Your task to perform on an android device: Go to Reddit.com Image 0: 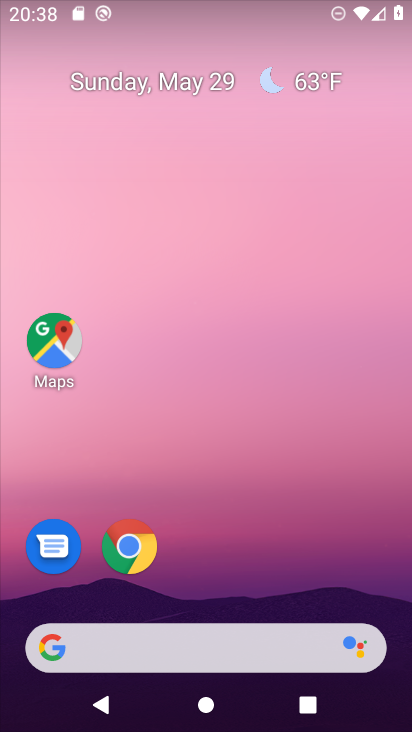
Step 0: press home button
Your task to perform on an android device: Go to Reddit.com Image 1: 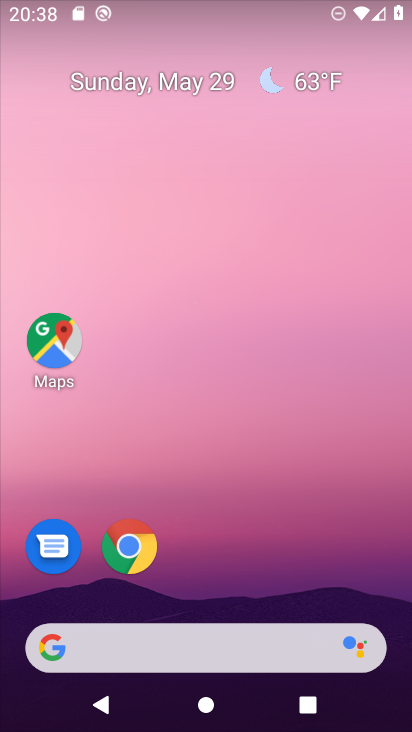
Step 1: click (126, 554)
Your task to perform on an android device: Go to Reddit.com Image 2: 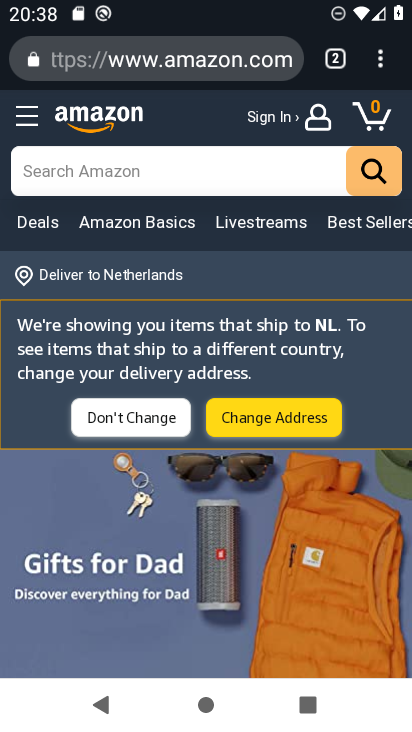
Step 2: drag from (381, 67) to (205, 118)
Your task to perform on an android device: Go to Reddit.com Image 3: 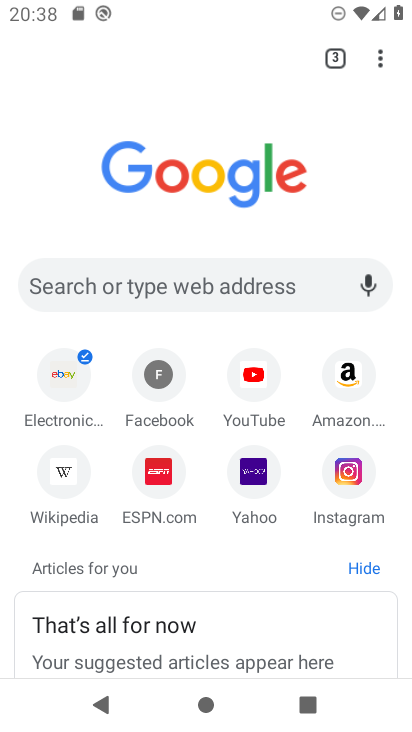
Step 3: click (172, 295)
Your task to perform on an android device: Go to Reddit.com Image 4: 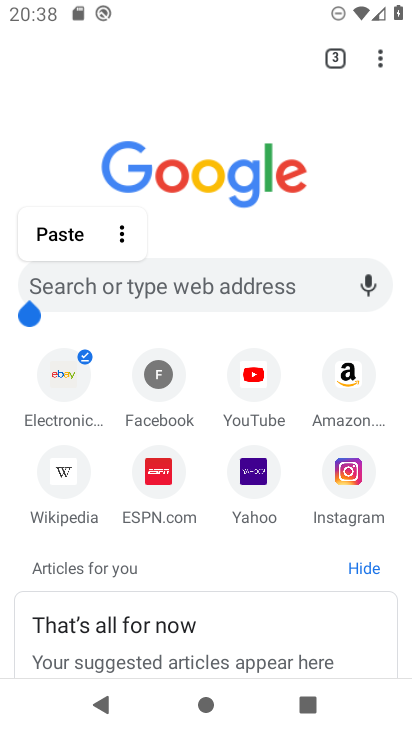
Step 4: click (125, 280)
Your task to perform on an android device: Go to Reddit.com Image 5: 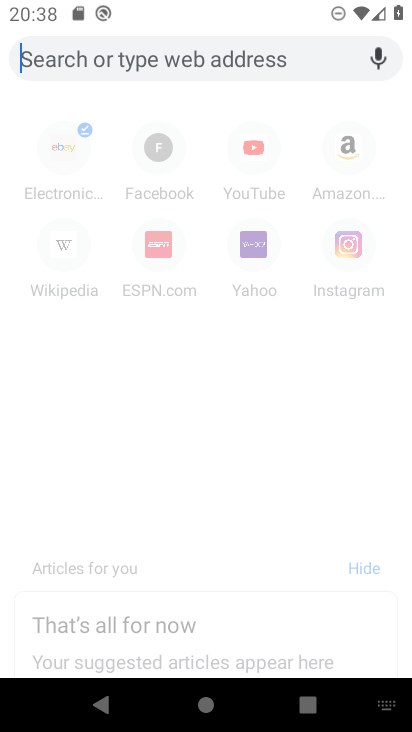
Step 5: type "reddit.com"
Your task to perform on an android device: Go to Reddit.com Image 6: 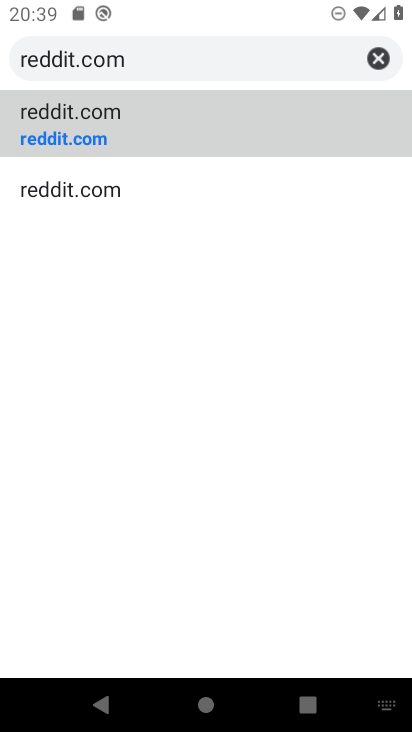
Step 6: click (105, 129)
Your task to perform on an android device: Go to Reddit.com Image 7: 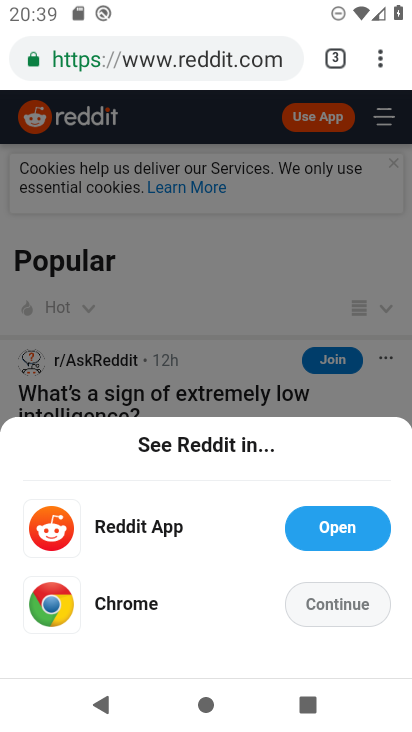
Step 7: task complete